Your task to perform on an android device: change text size in settings app Image 0: 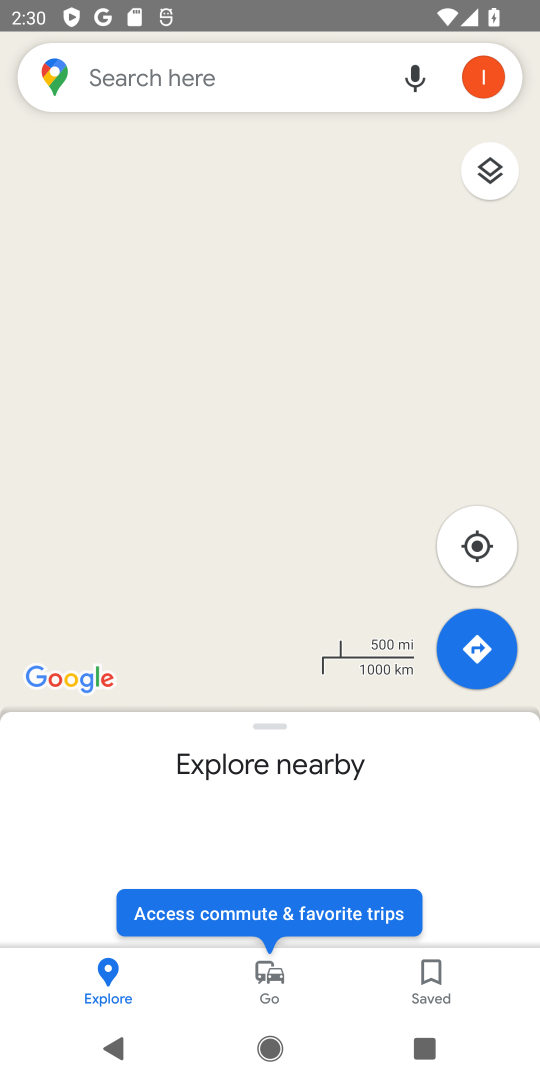
Step 0: press home button
Your task to perform on an android device: change text size in settings app Image 1: 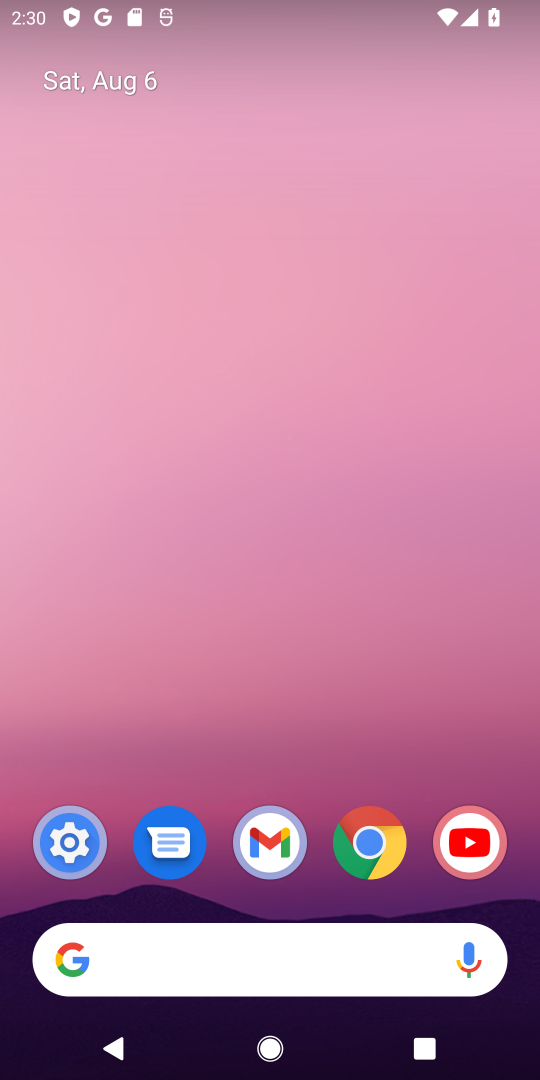
Step 1: click (68, 842)
Your task to perform on an android device: change text size in settings app Image 2: 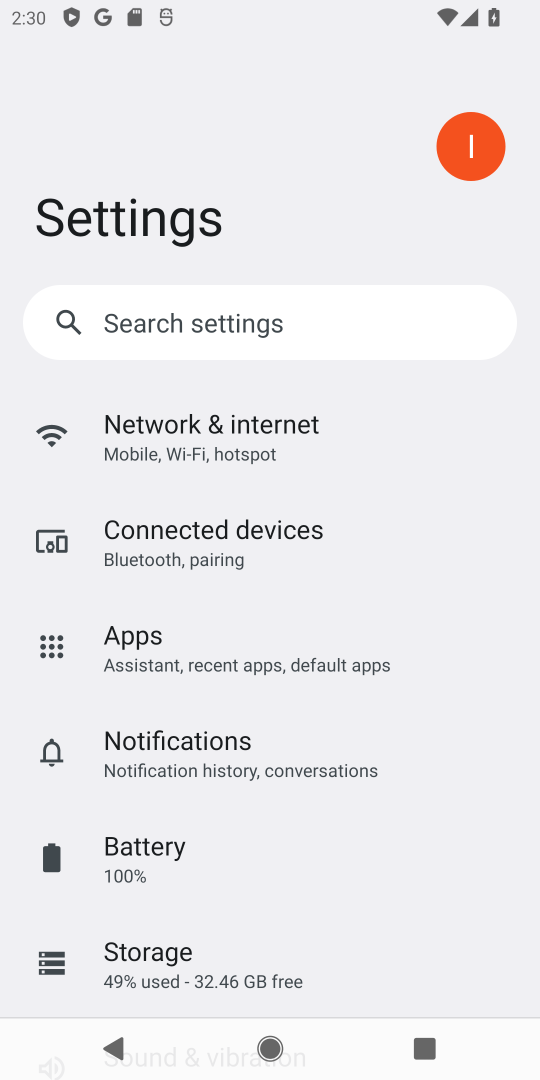
Step 2: drag from (357, 948) to (319, 474)
Your task to perform on an android device: change text size in settings app Image 3: 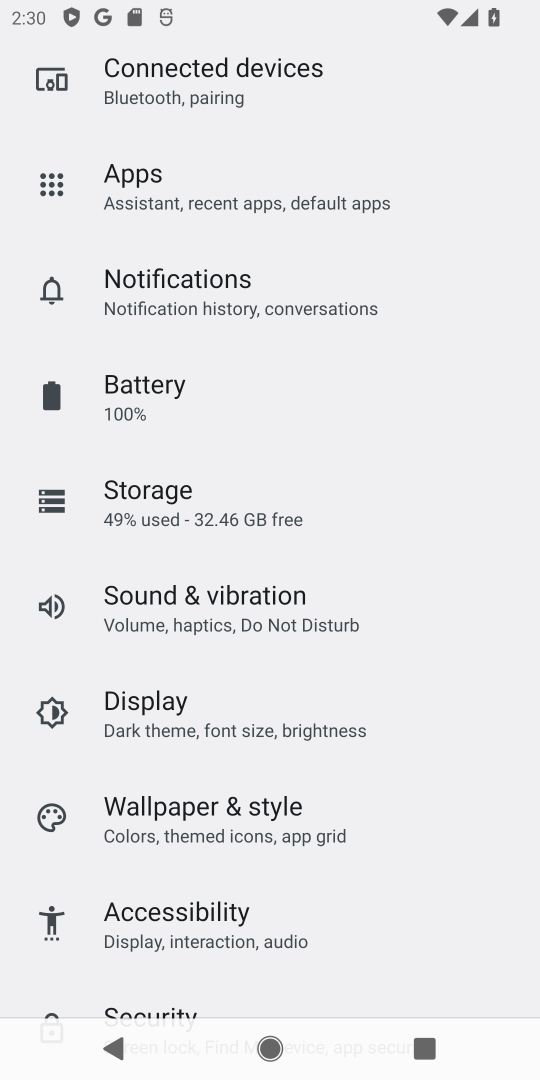
Step 3: click (112, 707)
Your task to perform on an android device: change text size in settings app Image 4: 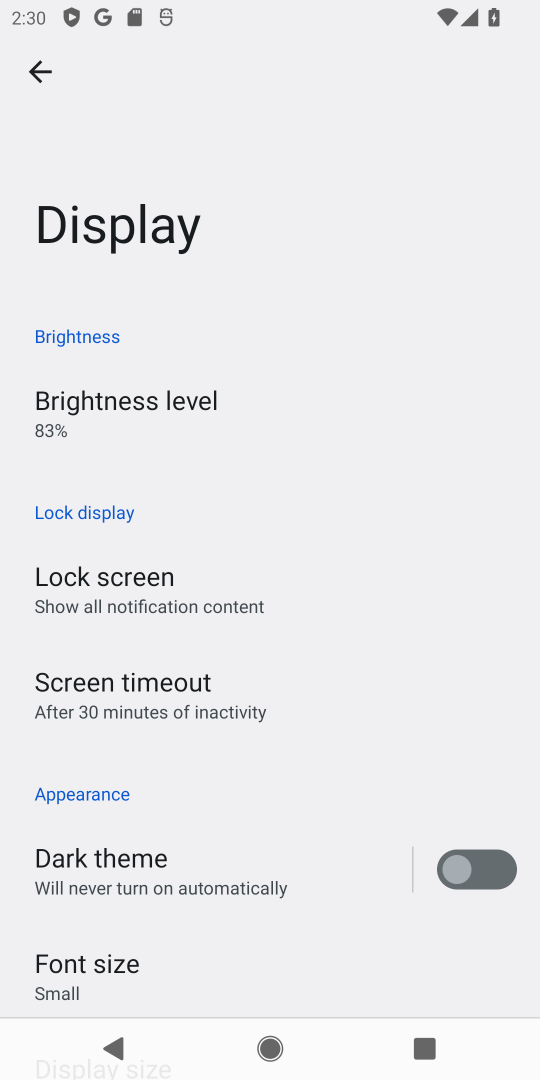
Step 4: drag from (257, 951) to (238, 481)
Your task to perform on an android device: change text size in settings app Image 5: 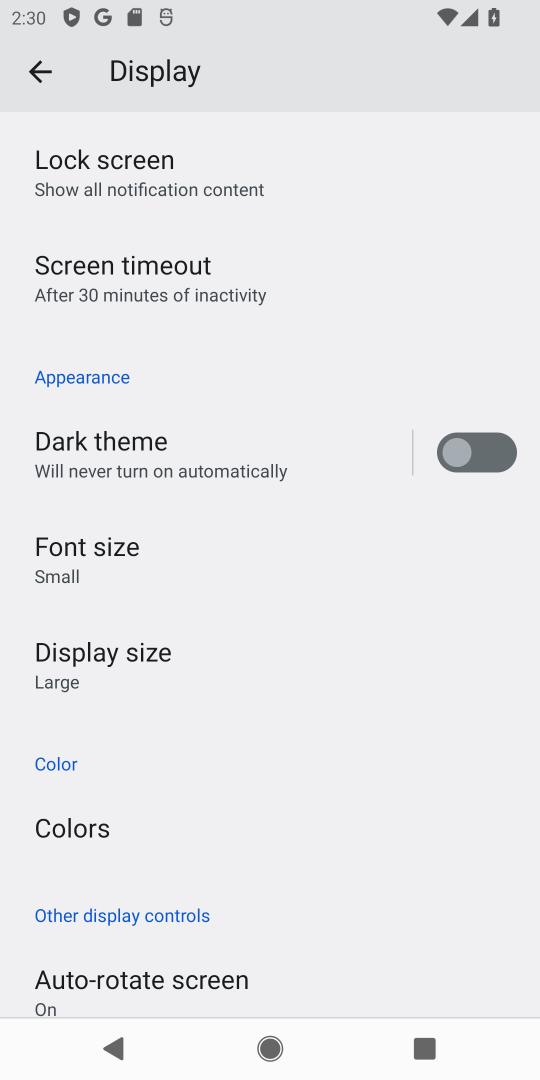
Step 5: click (109, 656)
Your task to perform on an android device: change text size in settings app Image 6: 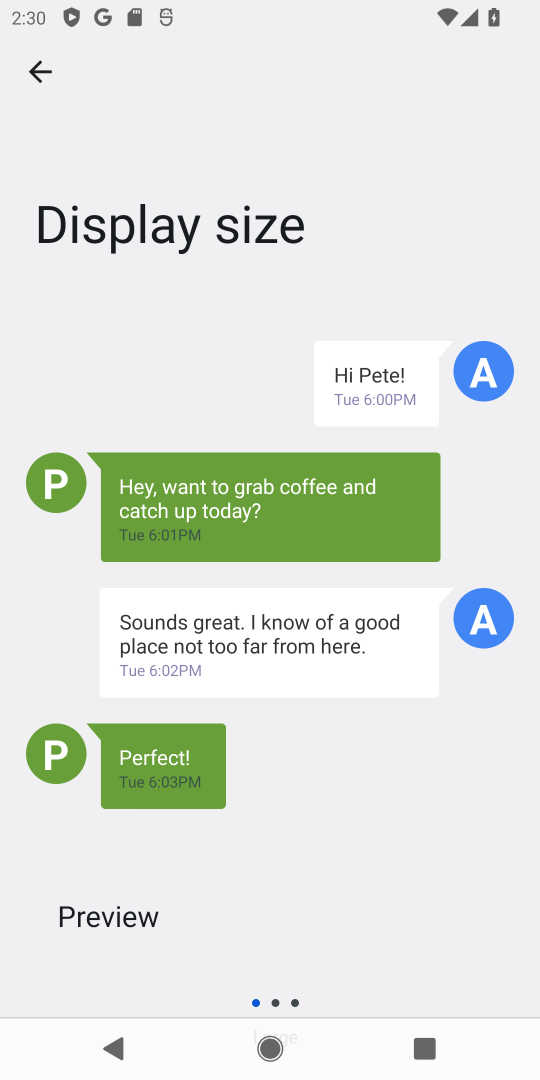
Step 6: click (40, 75)
Your task to perform on an android device: change text size in settings app Image 7: 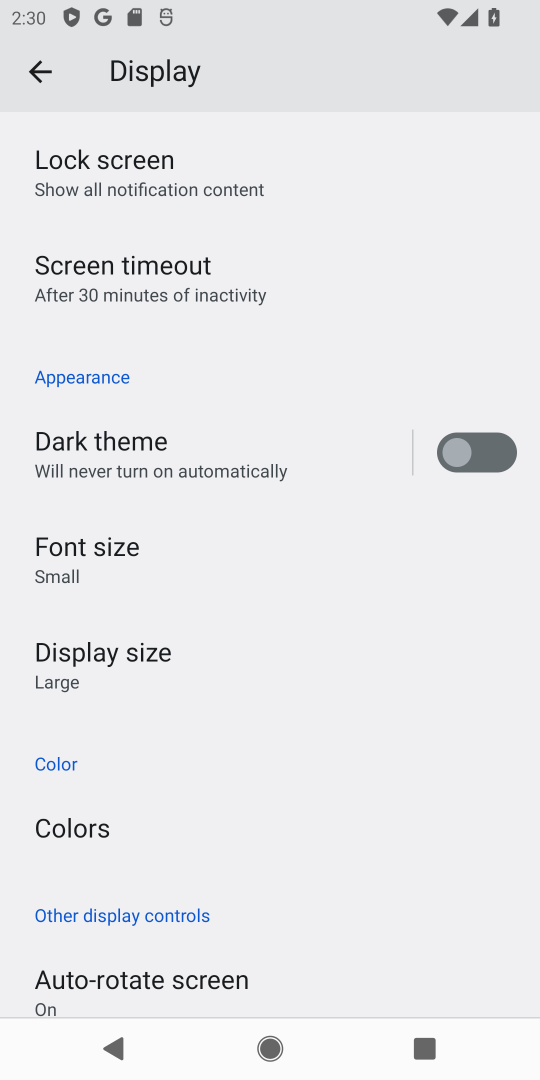
Step 7: click (103, 563)
Your task to perform on an android device: change text size in settings app Image 8: 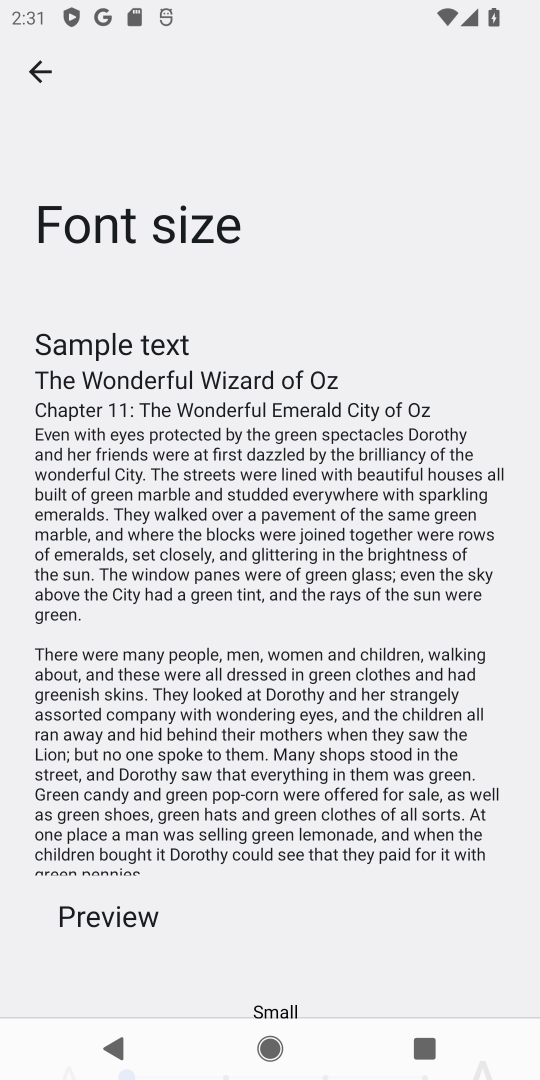
Step 8: drag from (228, 925) to (210, 600)
Your task to perform on an android device: change text size in settings app Image 9: 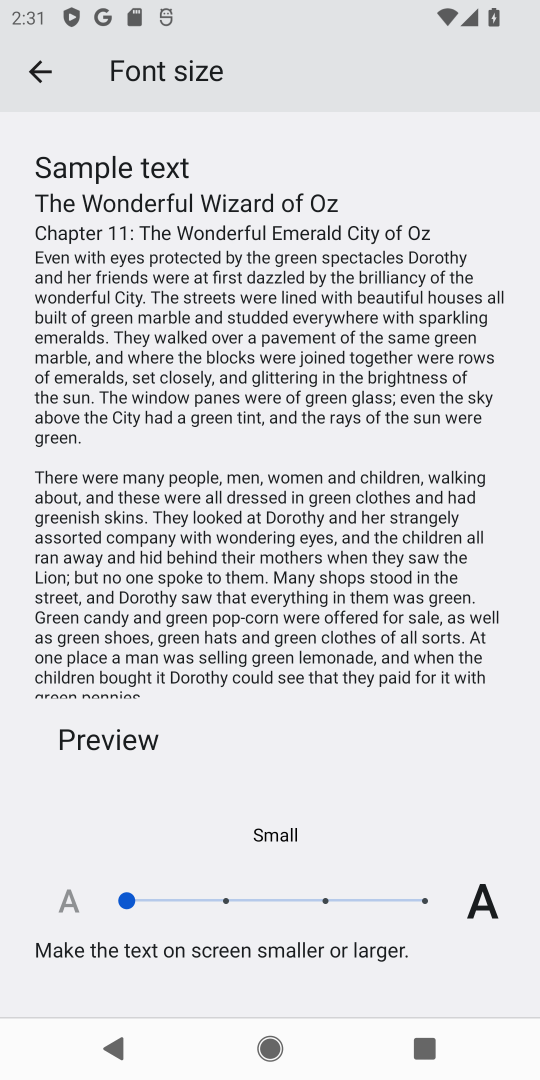
Step 9: click (226, 987)
Your task to perform on an android device: change text size in settings app Image 10: 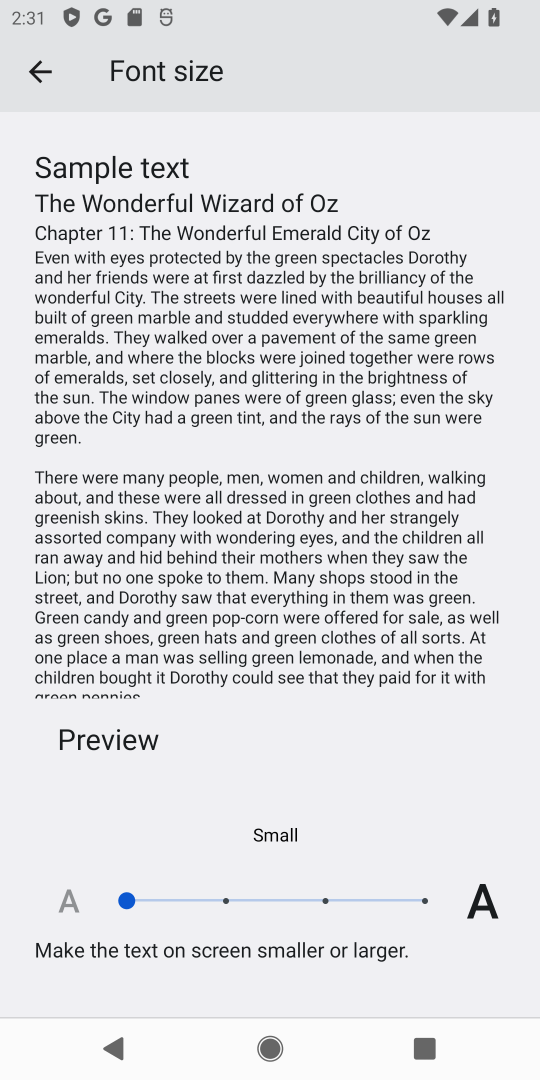
Step 10: click (222, 901)
Your task to perform on an android device: change text size in settings app Image 11: 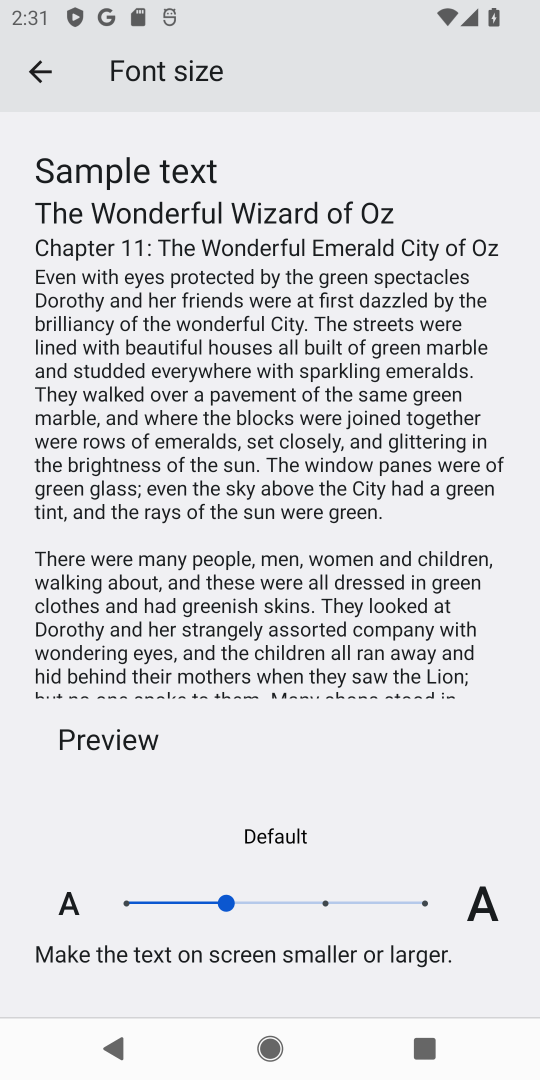
Step 11: task complete